Your task to perform on an android device: What's on my calendar tomorrow? Image 0: 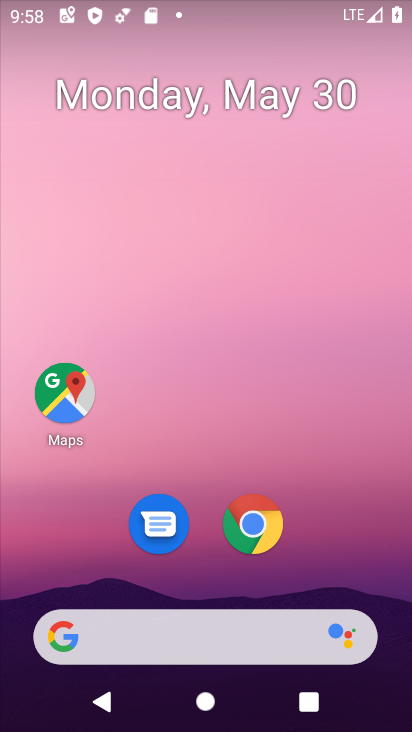
Step 0: drag from (328, 532) to (321, 23)
Your task to perform on an android device: What's on my calendar tomorrow? Image 1: 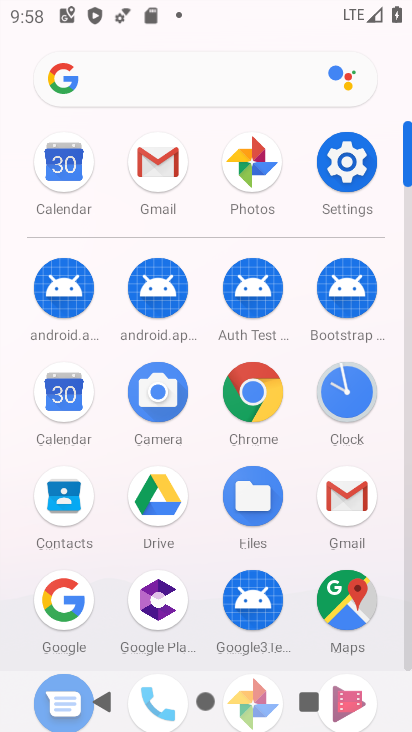
Step 1: click (58, 164)
Your task to perform on an android device: What's on my calendar tomorrow? Image 2: 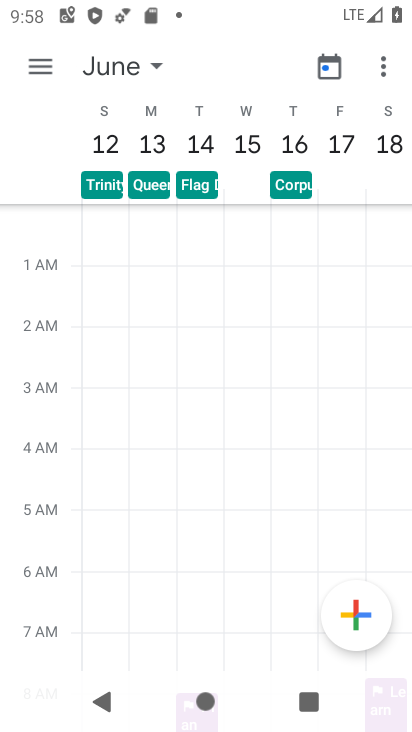
Step 2: drag from (119, 276) to (377, 334)
Your task to perform on an android device: What's on my calendar tomorrow? Image 3: 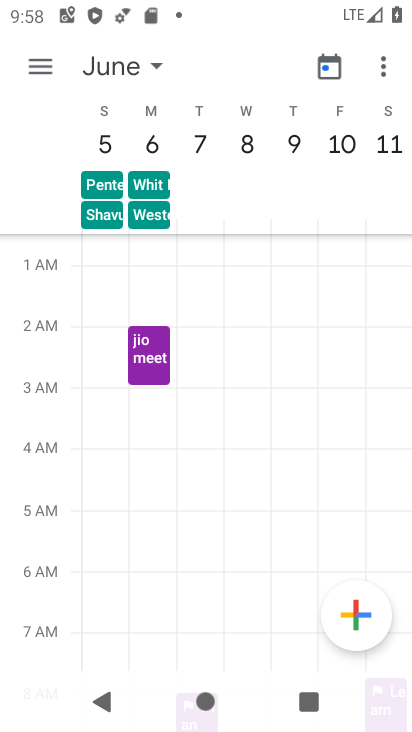
Step 3: drag from (102, 420) to (396, 413)
Your task to perform on an android device: What's on my calendar tomorrow? Image 4: 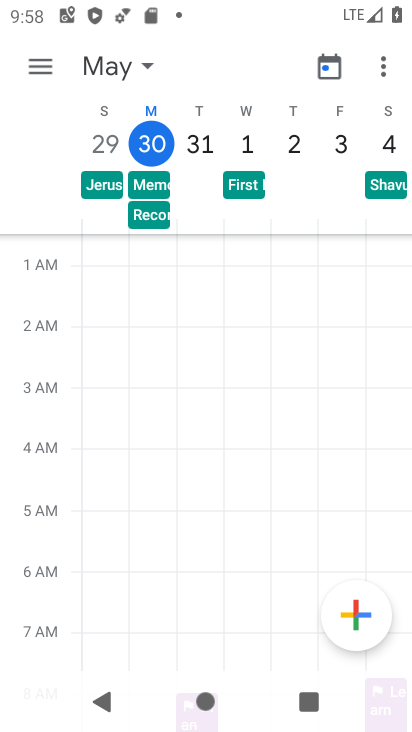
Step 4: click (150, 143)
Your task to perform on an android device: What's on my calendar tomorrow? Image 5: 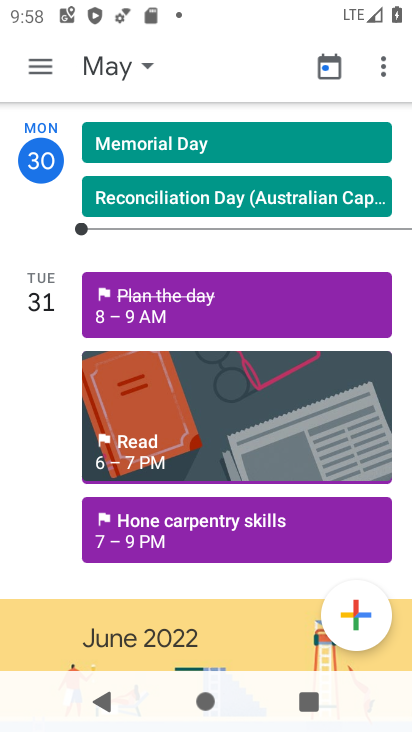
Step 5: task complete